Your task to perform on an android device: Open wifi settings Image 0: 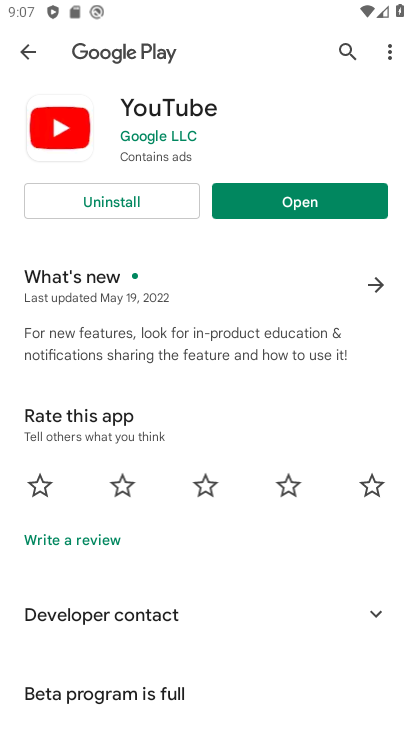
Step 0: press home button
Your task to perform on an android device: Open wifi settings Image 1: 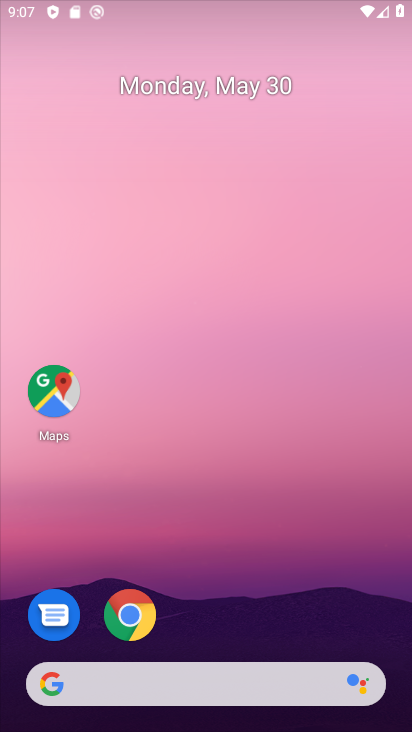
Step 1: drag from (199, 311) to (306, 142)
Your task to perform on an android device: Open wifi settings Image 2: 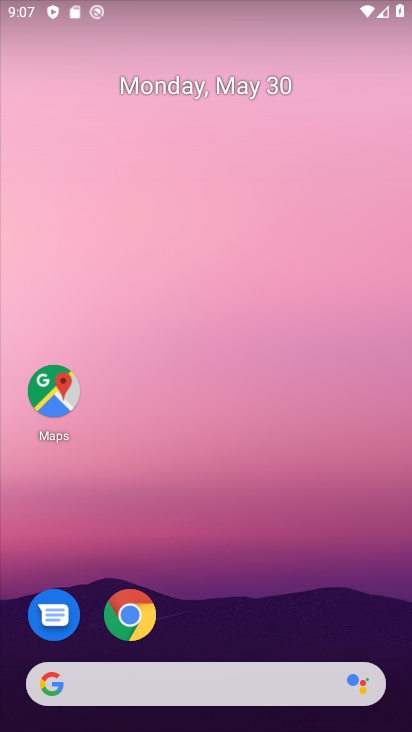
Step 2: drag from (130, 726) to (259, 192)
Your task to perform on an android device: Open wifi settings Image 3: 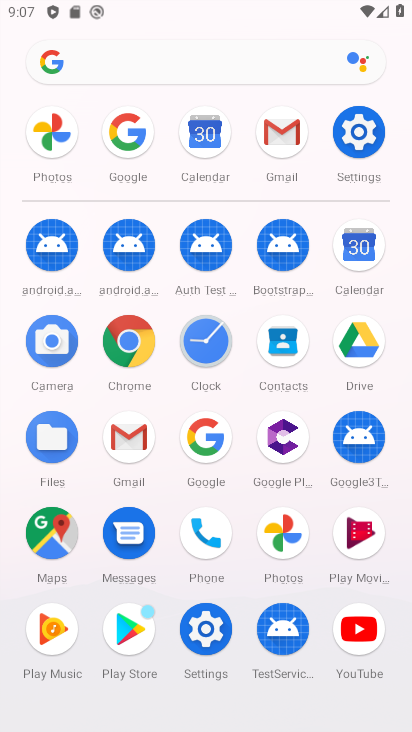
Step 3: click (374, 145)
Your task to perform on an android device: Open wifi settings Image 4: 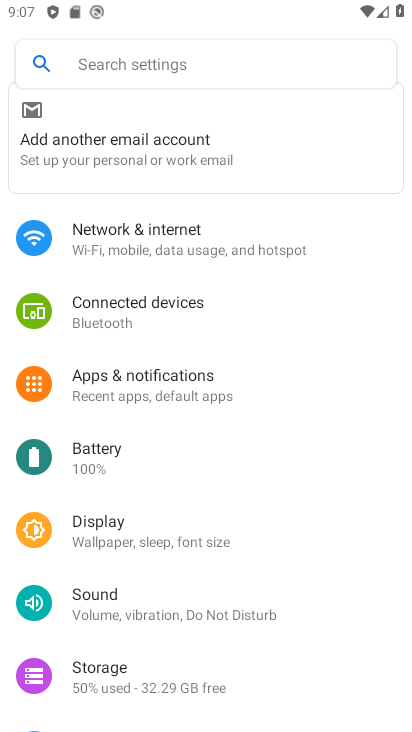
Step 4: click (125, 262)
Your task to perform on an android device: Open wifi settings Image 5: 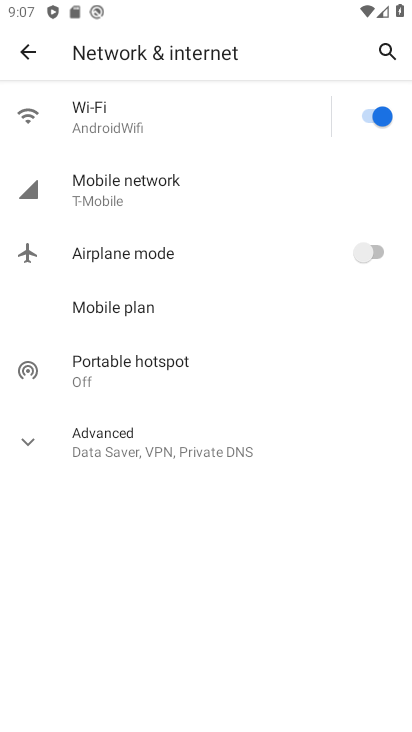
Step 5: click (139, 135)
Your task to perform on an android device: Open wifi settings Image 6: 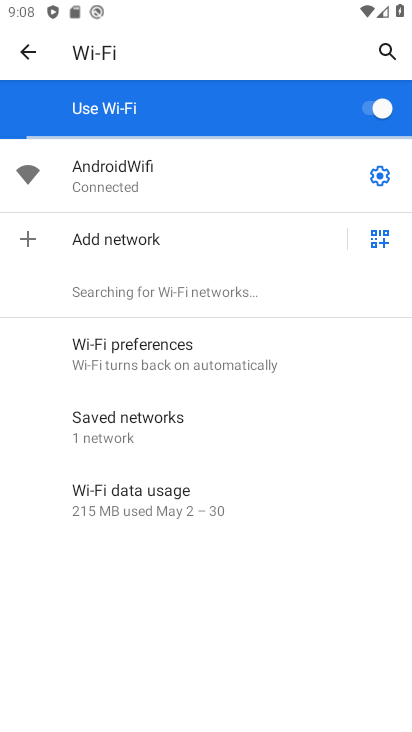
Step 6: task complete